Your task to perform on an android device: Go to location settings Image 0: 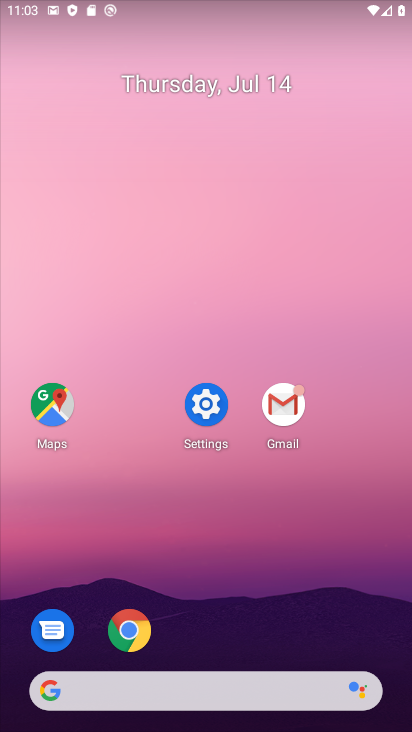
Step 0: click (202, 387)
Your task to perform on an android device: Go to location settings Image 1: 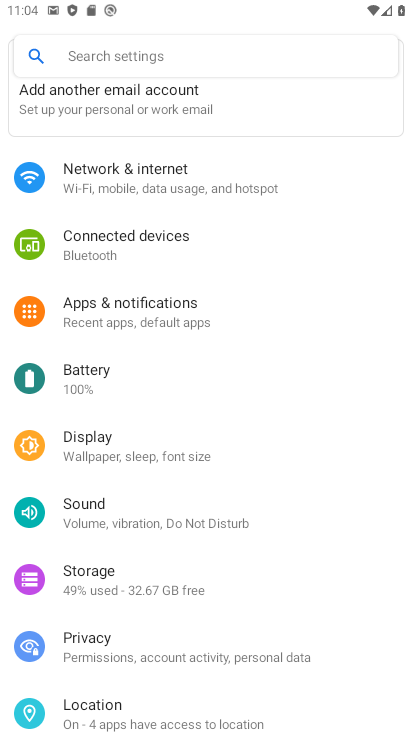
Step 1: click (80, 700)
Your task to perform on an android device: Go to location settings Image 2: 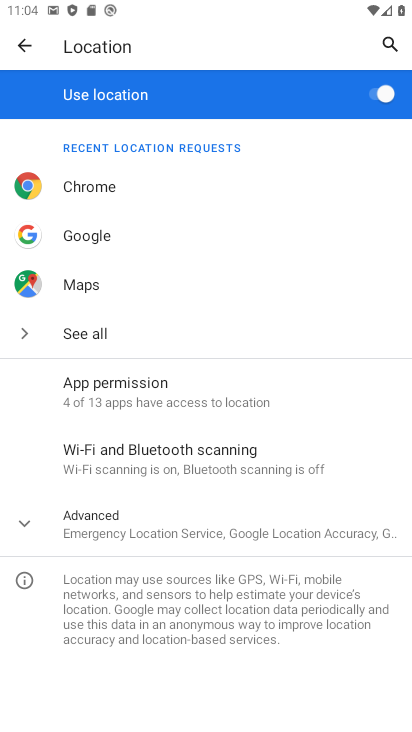
Step 2: click (20, 519)
Your task to perform on an android device: Go to location settings Image 3: 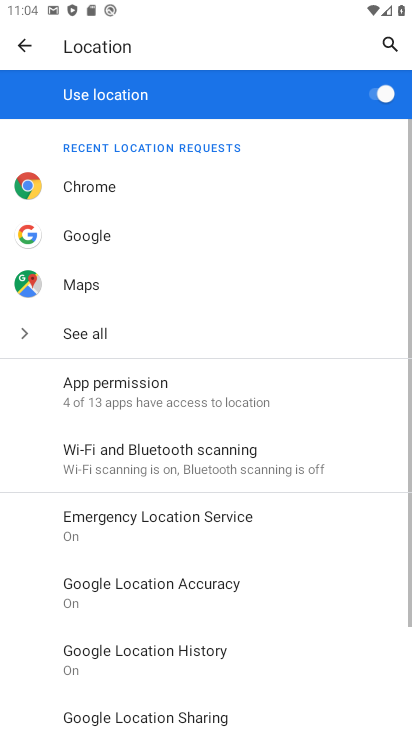
Step 3: task complete